Your task to perform on an android device: Check the news Image 0: 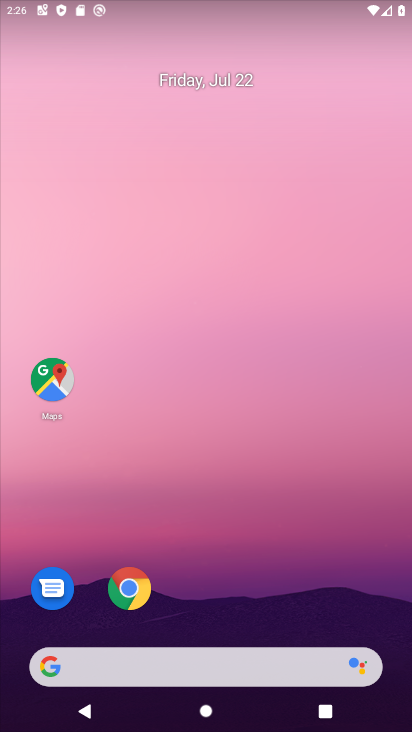
Step 0: drag from (5, 467) to (393, 485)
Your task to perform on an android device: Check the news Image 1: 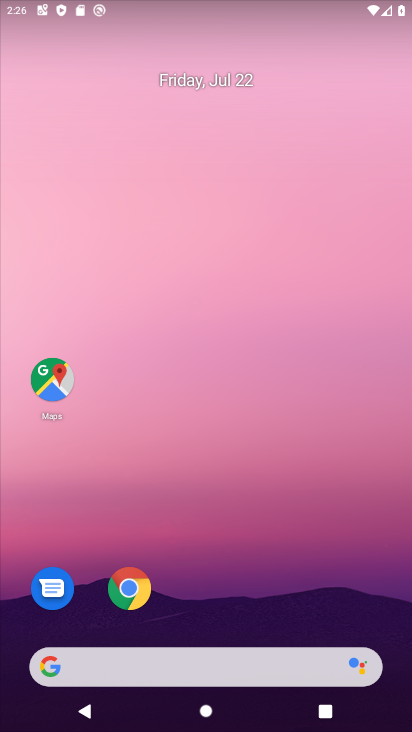
Step 1: task complete